Your task to perform on an android device: install app "DuckDuckGo Privacy Browser" Image 0: 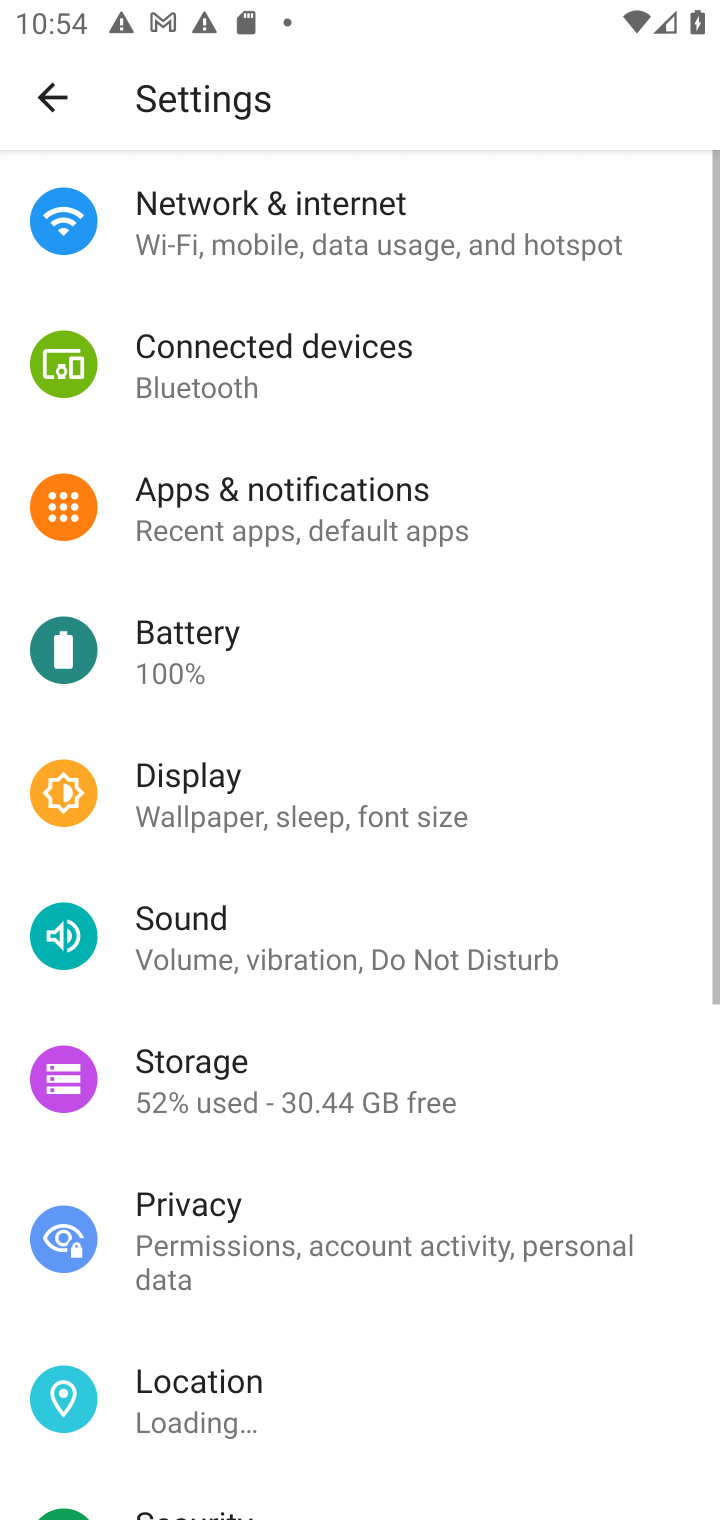
Step 0: press home button
Your task to perform on an android device: install app "DuckDuckGo Privacy Browser" Image 1: 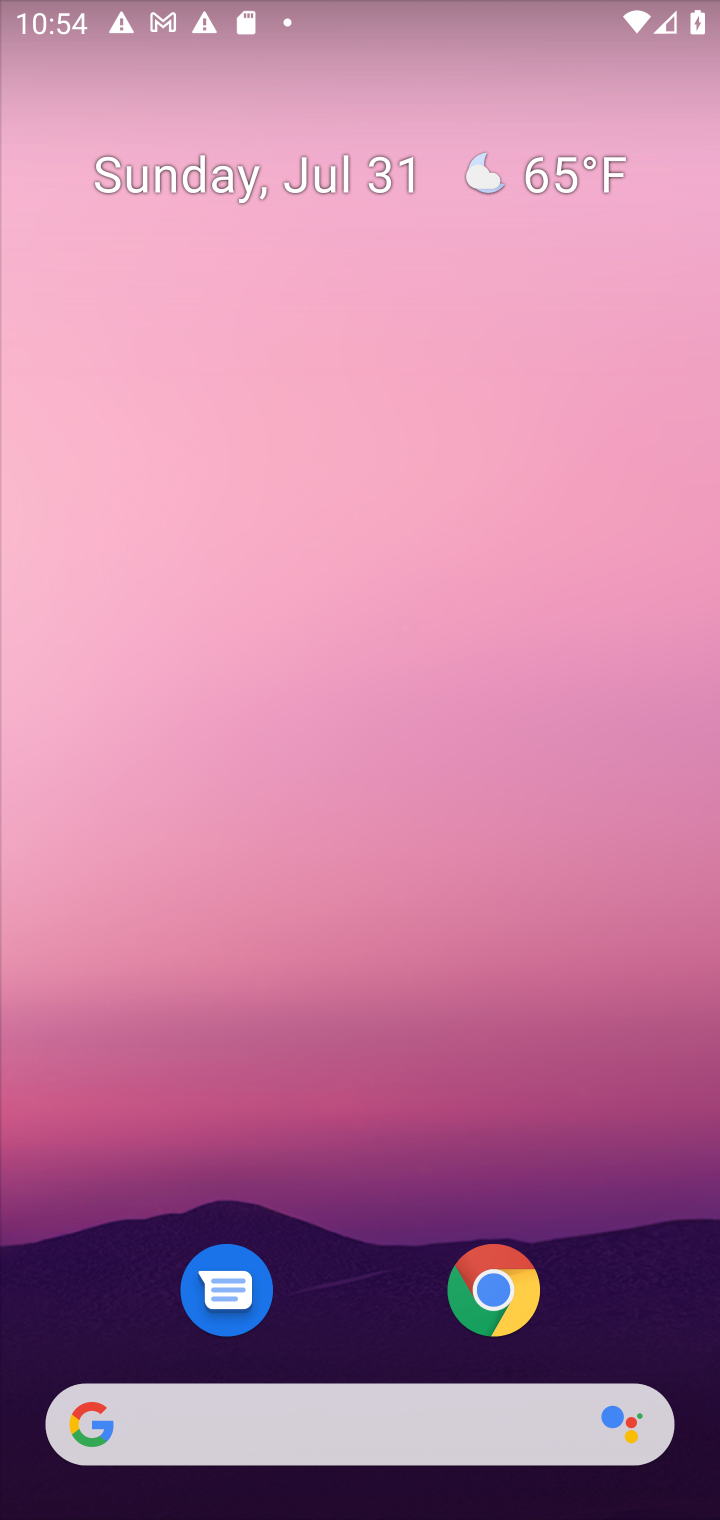
Step 1: drag from (625, 1138) to (556, 112)
Your task to perform on an android device: install app "DuckDuckGo Privacy Browser" Image 2: 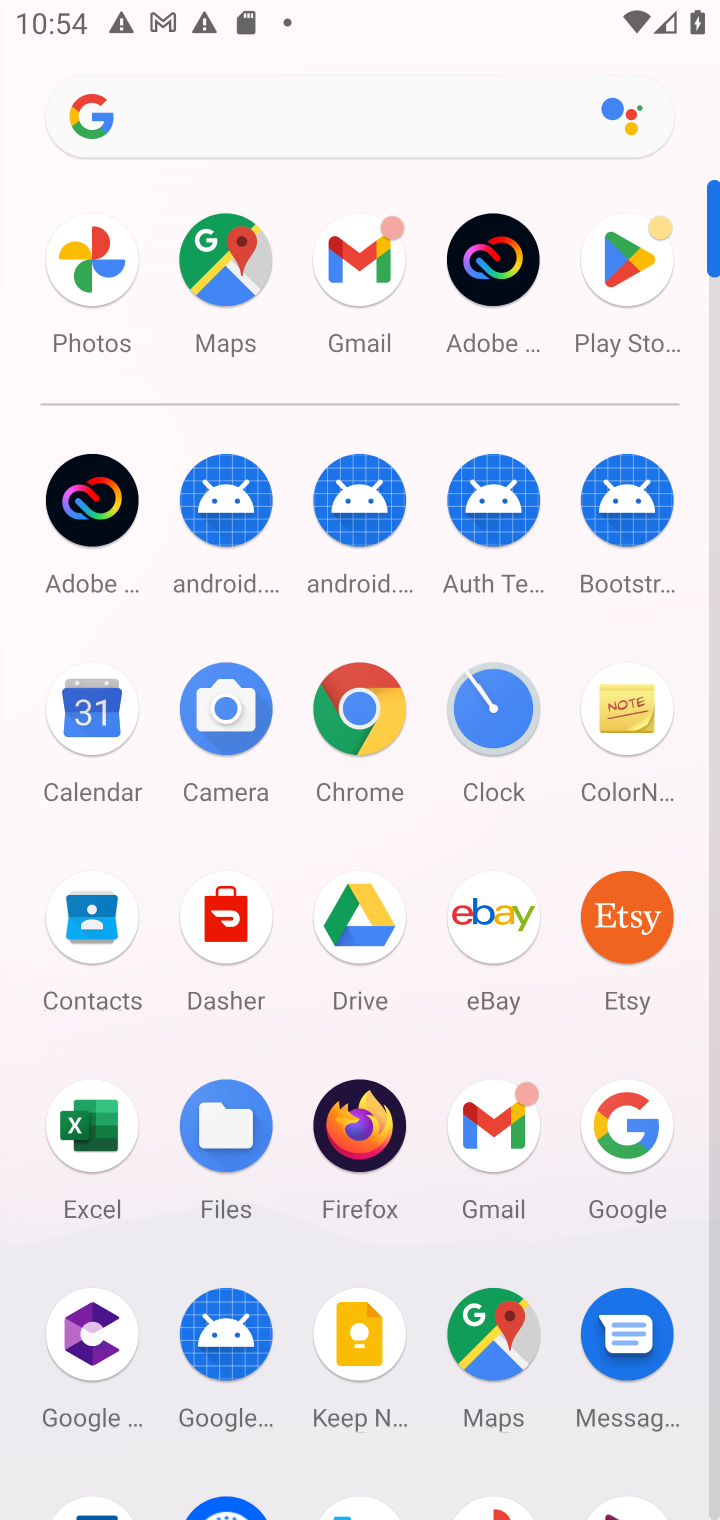
Step 2: click (620, 279)
Your task to perform on an android device: install app "DuckDuckGo Privacy Browser" Image 3: 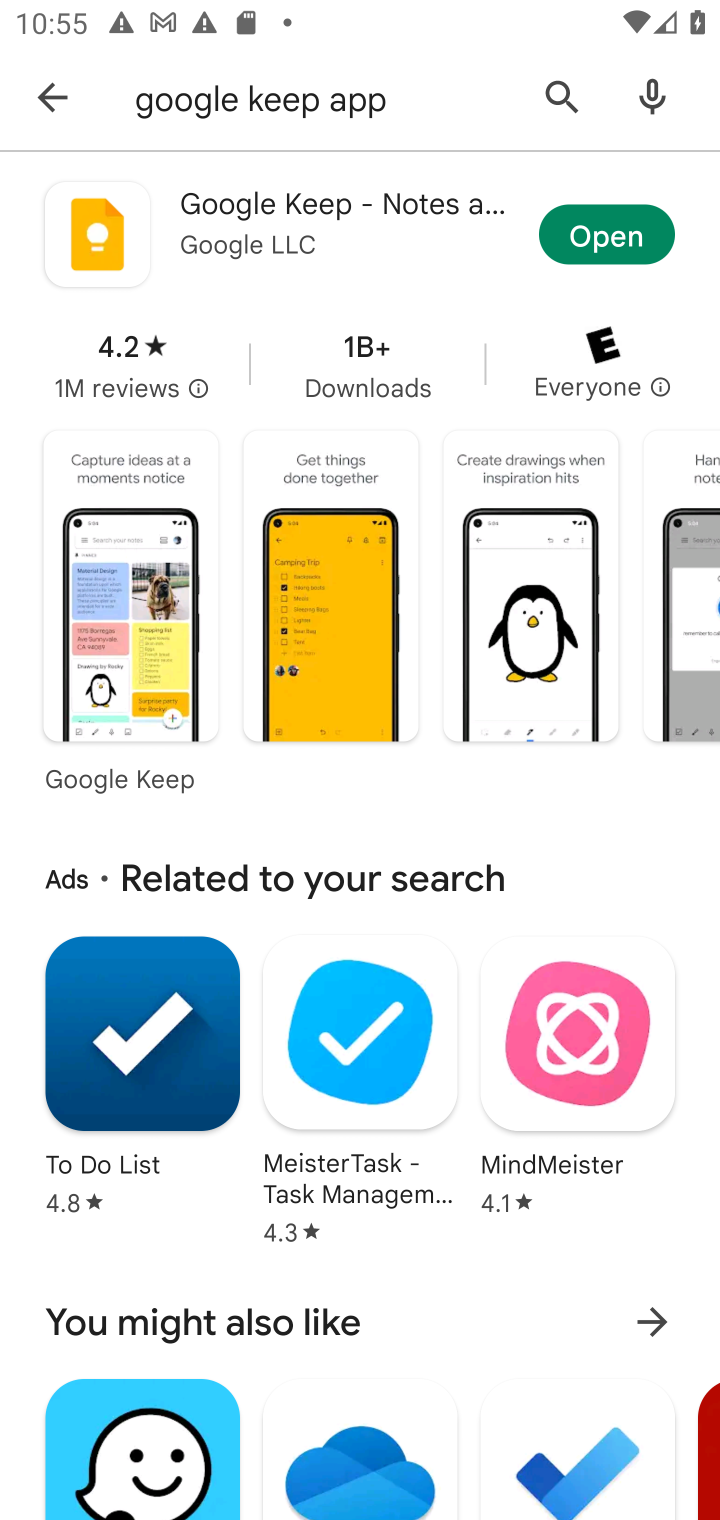
Step 3: click (559, 82)
Your task to perform on an android device: install app "DuckDuckGo Privacy Browser" Image 4: 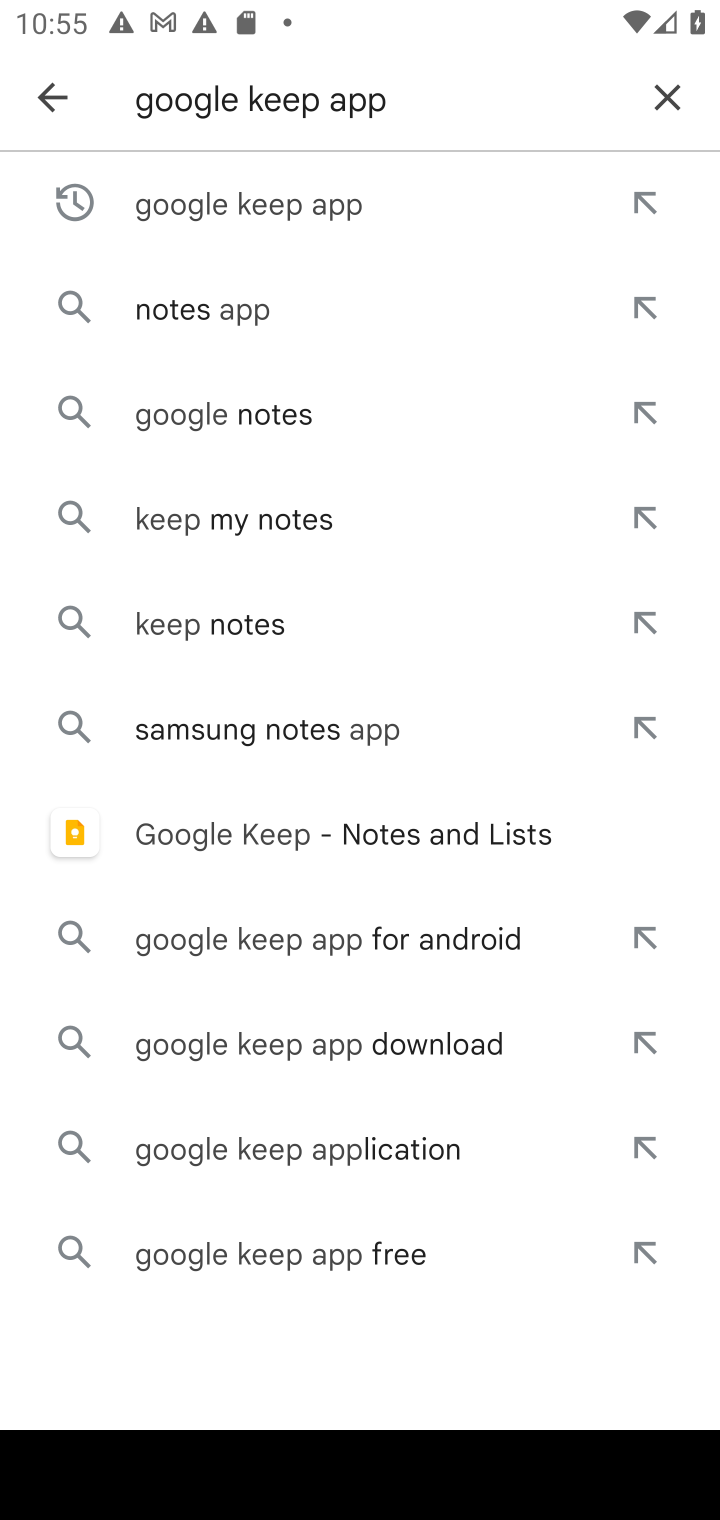
Step 4: click (673, 97)
Your task to perform on an android device: install app "DuckDuckGo Privacy Browser" Image 5: 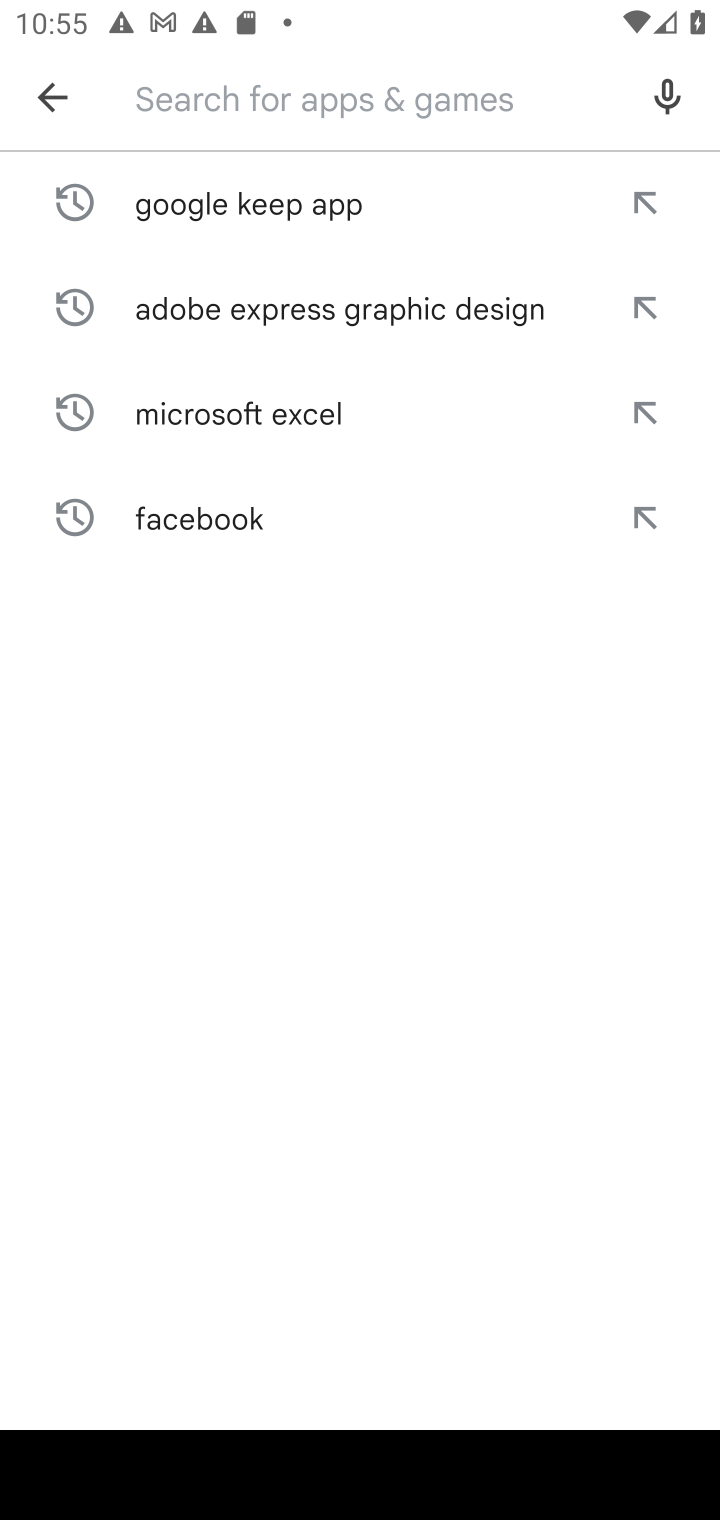
Step 5: click (455, 101)
Your task to perform on an android device: install app "DuckDuckGo Privacy Browser" Image 6: 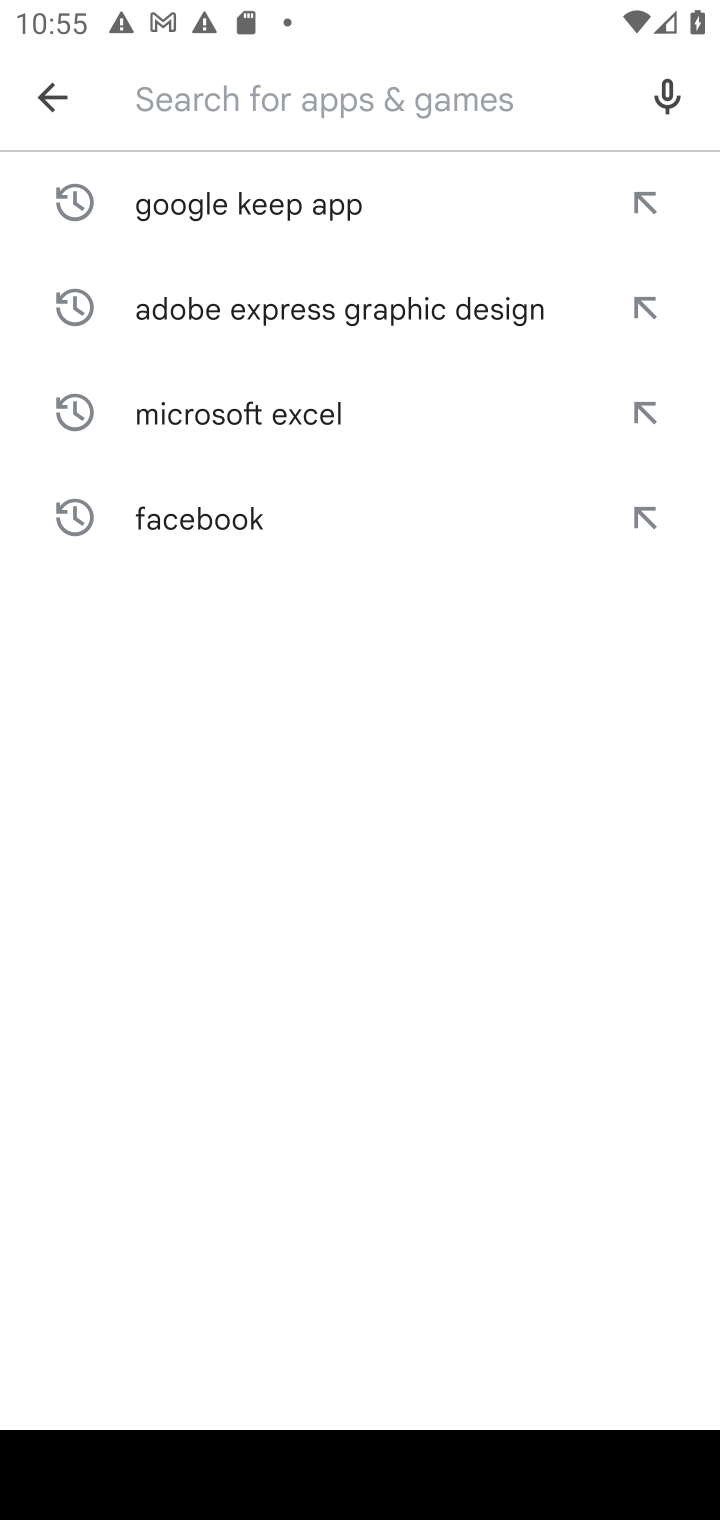
Step 6: type "duckduckgo priacy browser"
Your task to perform on an android device: install app "DuckDuckGo Privacy Browser" Image 7: 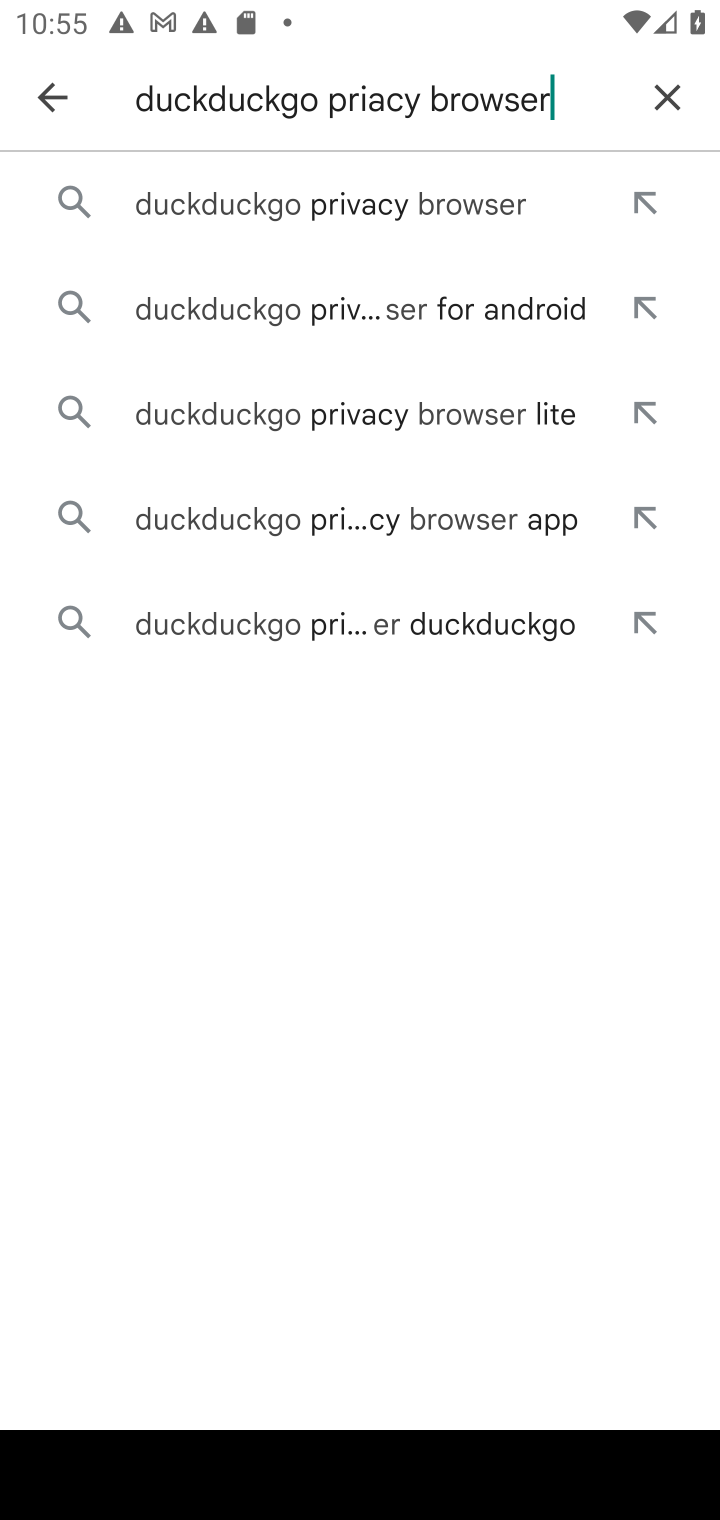
Step 7: click (456, 206)
Your task to perform on an android device: install app "DuckDuckGo Privacy Browser" Image 8: 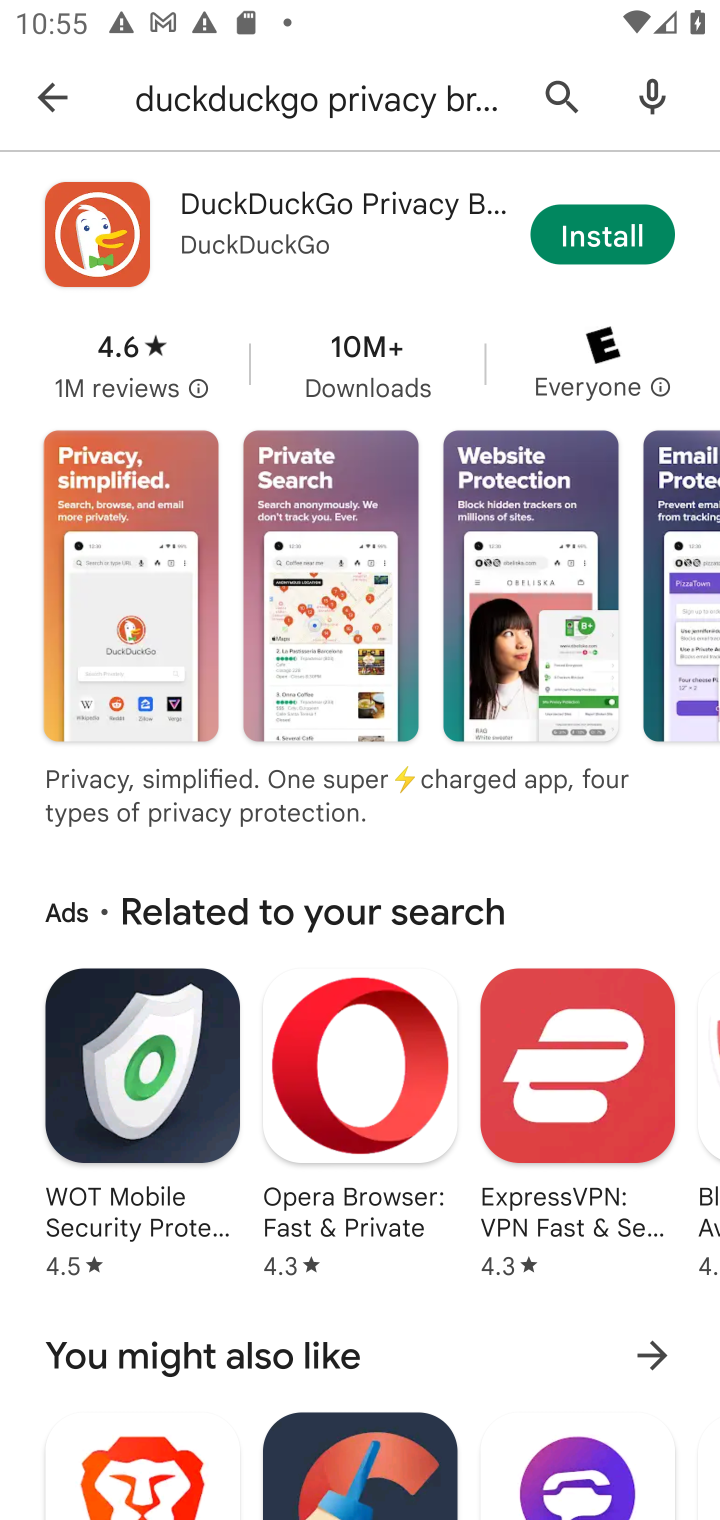
Step 8: click (630, 226)
Your task to perform on an android device: install app "DuckDuckGo Privacy Browser" Image 9: 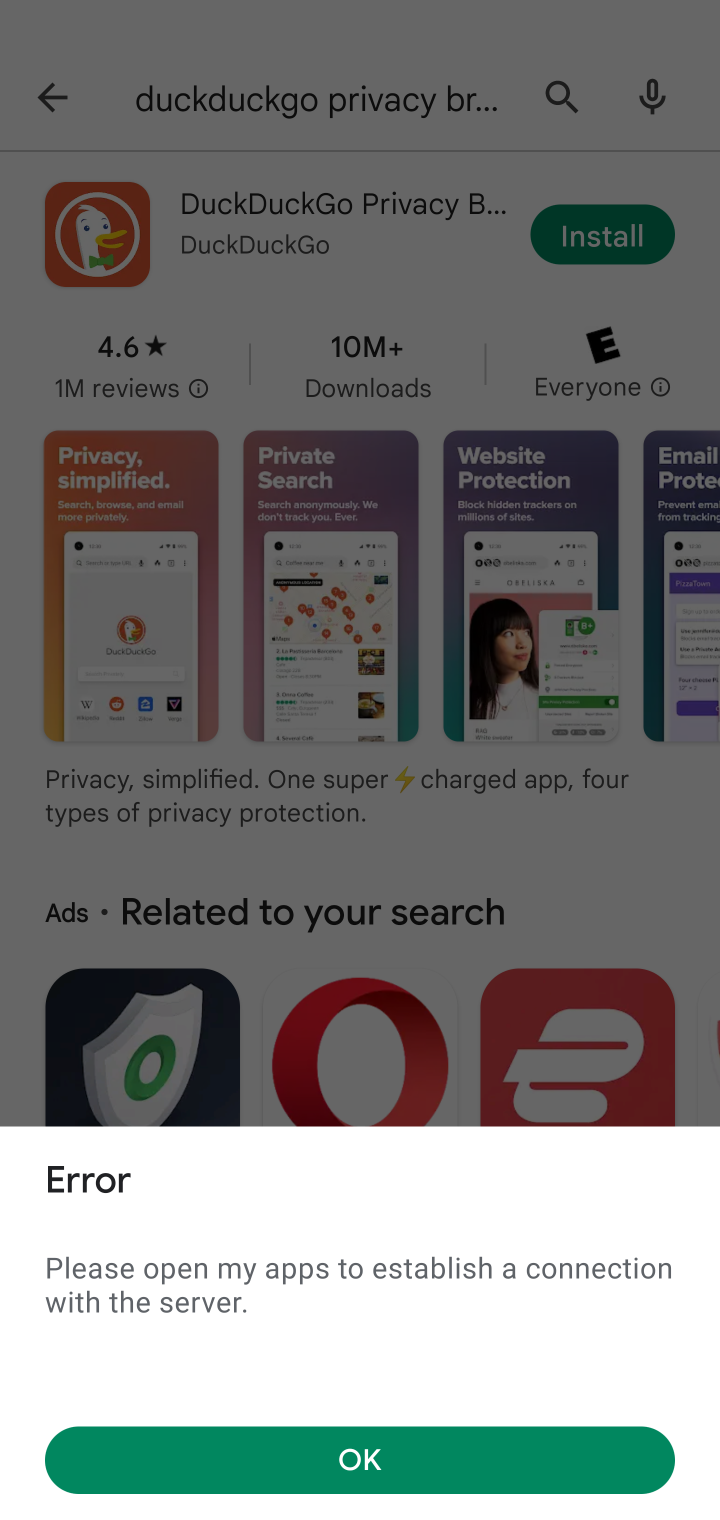
Step 9: task complete